Your task to perform on an android device: Open Google Chrome Image 0: 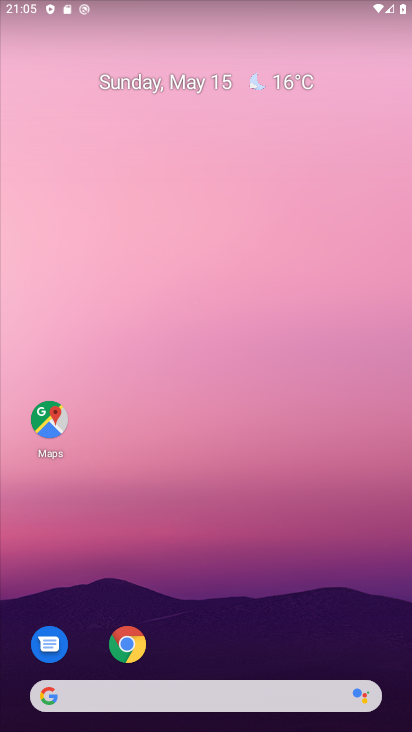
Step 0: click (127, 648)
Your task to perform on an android device: Open Google Chrome Image 1: 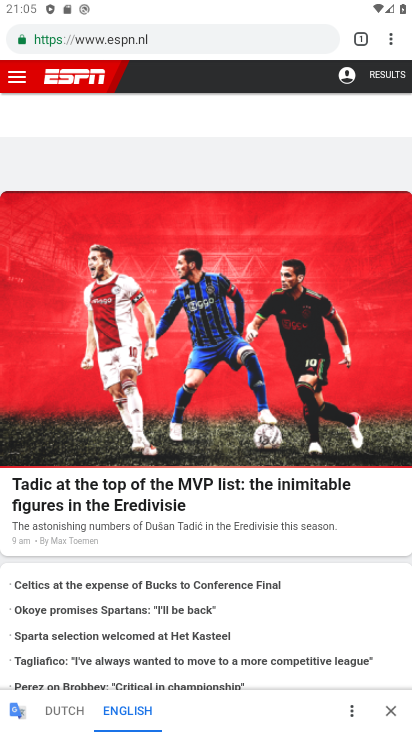
Step 1: task complete